Your task to perform on an android device: make emails show in primary in the gmail app Image 0: 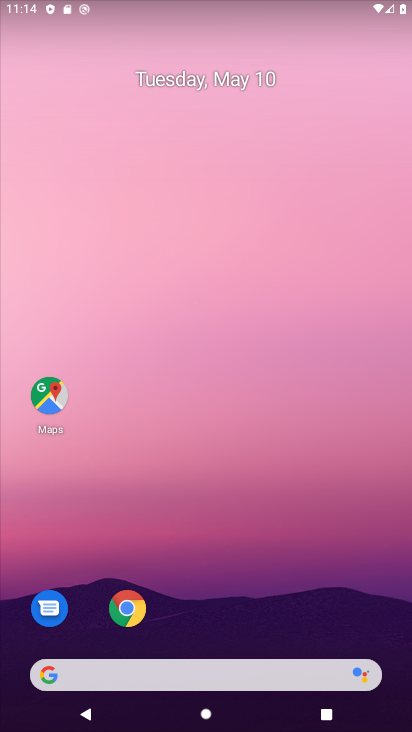
Step 0: drag from (244, 548) to (237, 23)
Your task to perform on an android device: make emails show in primary in the gmail app Image 1: 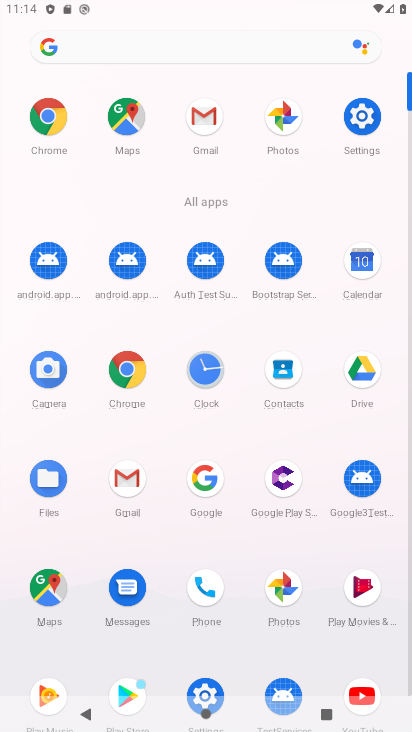
Step 1: click (207, 116)
Your task to perform on an android device: make emails show in primary in the gmail app Image 2: 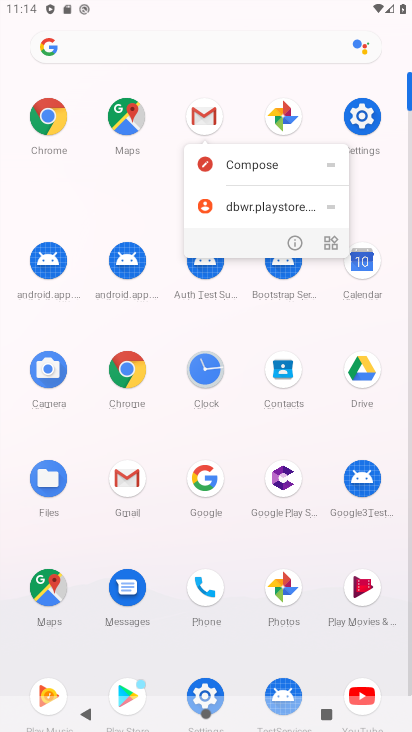
Step 2: click (207, 114)
Your task to perform on an android device: make emails show in primary in the gmail app Image 3: 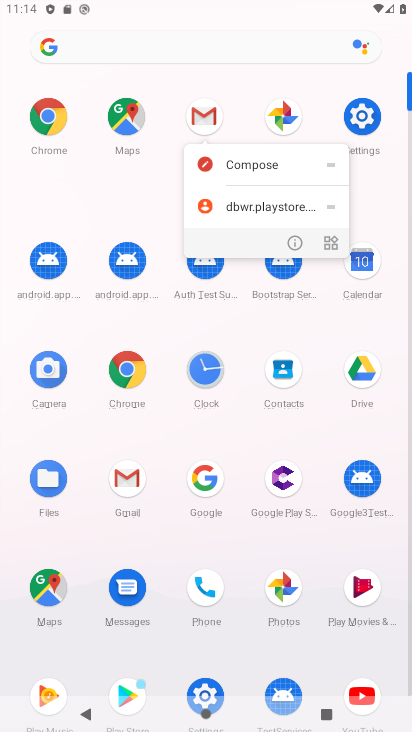
Step 3: click (207, 113)
Your task to perform on an android device: make emails show in primary in the gmail app Image 4: 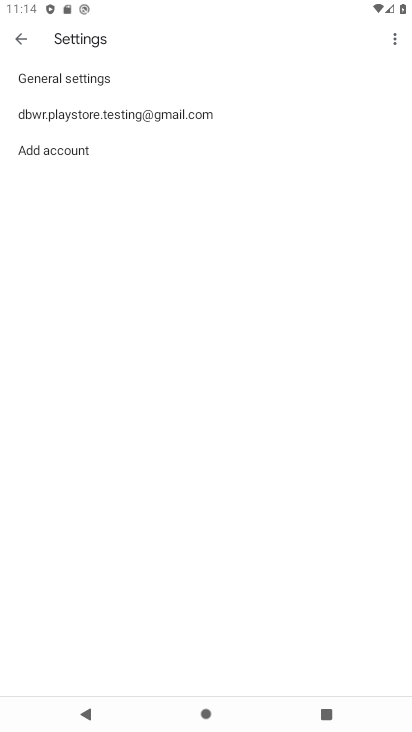
Step 4: click (180, 106)
Your task to perform on an android device: make emails show in primary in the gmail app Image 5: 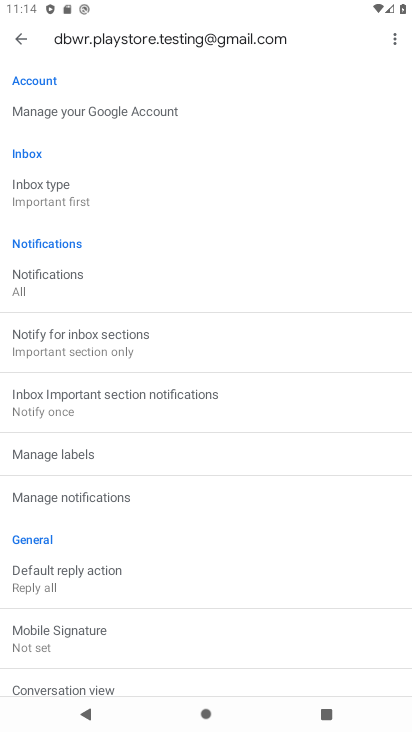
Step 5: click (59, 191)
Your task to perform on an android device: make emails show in primary in the gmail app Image 6: 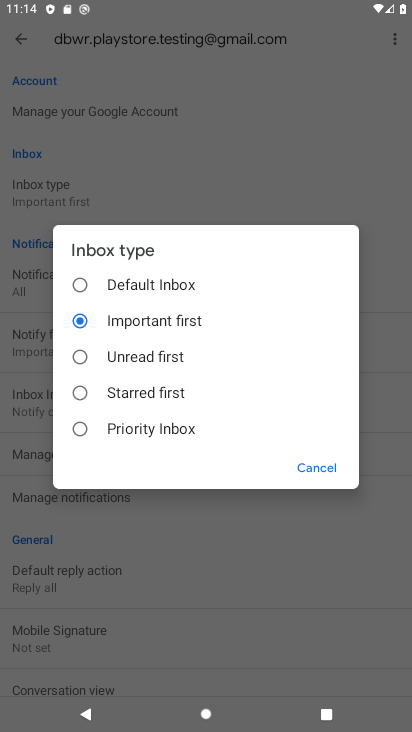
Step 6: click (76, 425)
Your task to perform on an android device: make emails show in primary in the gmail app Image 7: 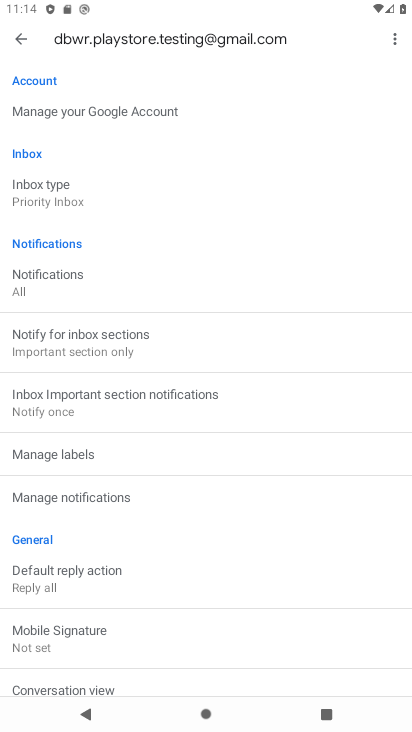
Step 7: click (74, 187)
Your task to perform on an android device: make emails show in primary in the gmail app Image 8: 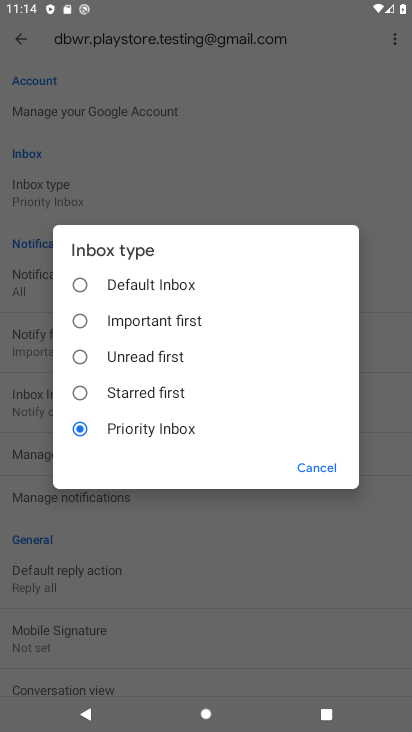
Step 8: click (89, 279)
Your task to perform on an android device: make emails show in primary in the gmail app Image 9: 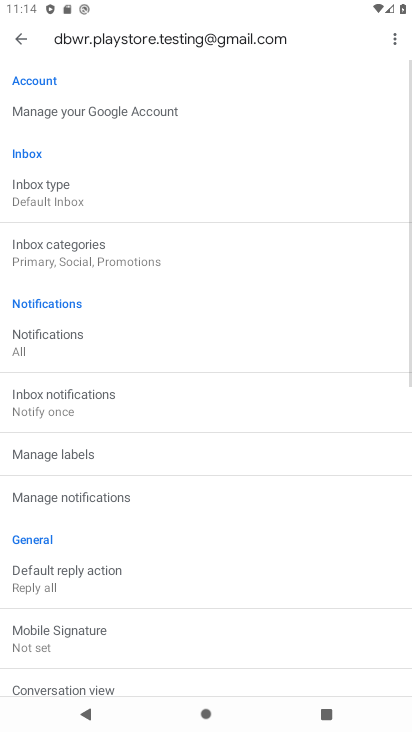
Step 9: click (96, 248)
Your task to perform on an android device: make emails show in primary in the gmail app Image 10: 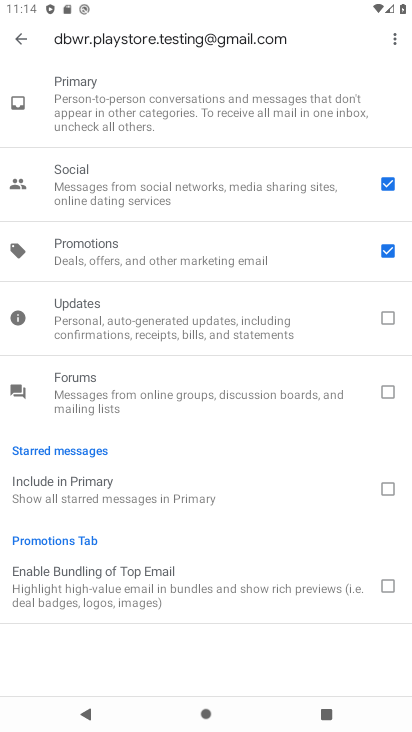
Step 10: click (384, 242)
Your task to perform on an android device: make emails show in primary in the gmail app Image 11: 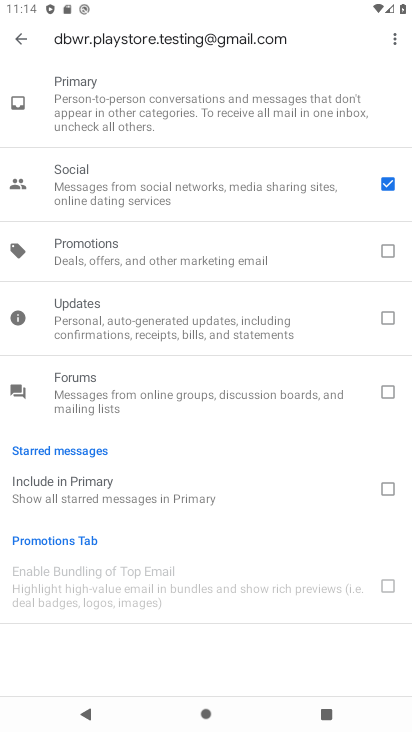
Step 11: click (383, 177)
Your task to perform on an android device: make emails show in primary in the gmail app Image 12: 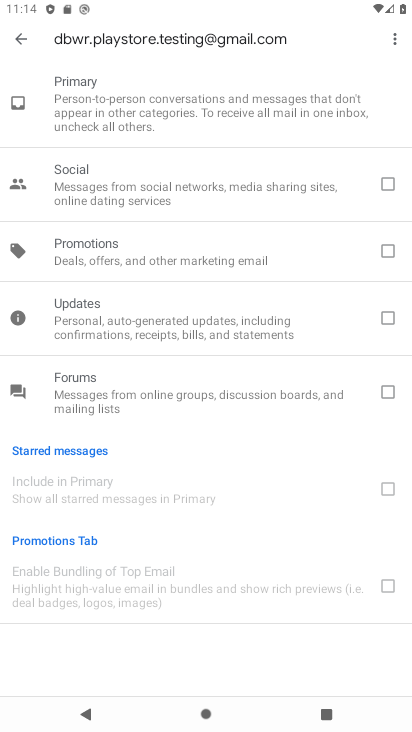
Step 12: click (19, 41)
Your task to perform on an android device: make emails show in primary in the gmail app Image 13: 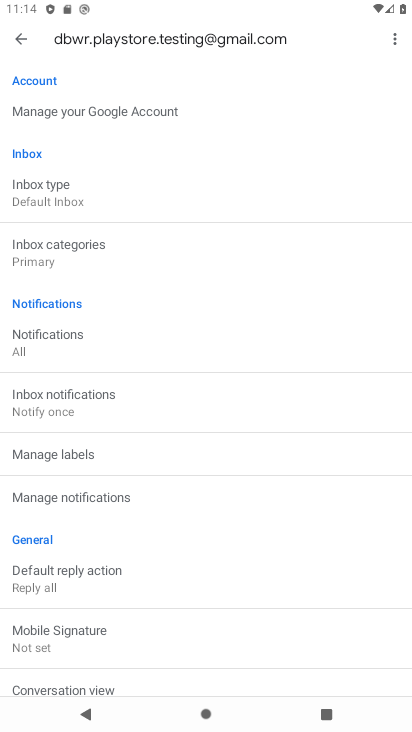
Step 13: task complete